Your task to perform on an android device: turn smart compose on in the gmail app Image 0: 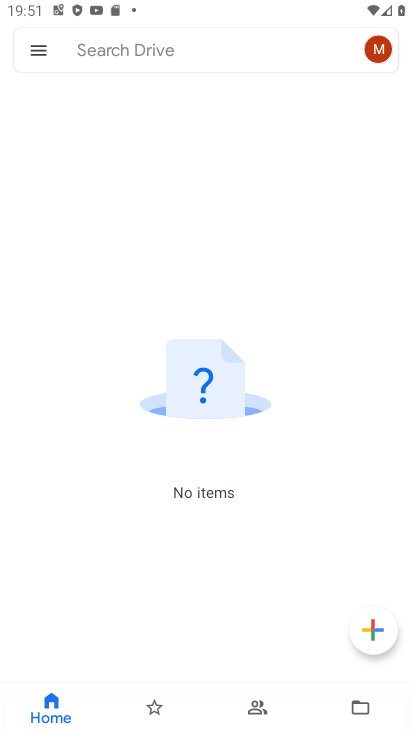
Step 0: press home button
Your task to perform on an android device: turn smart compose on in the gmail app Image 1: 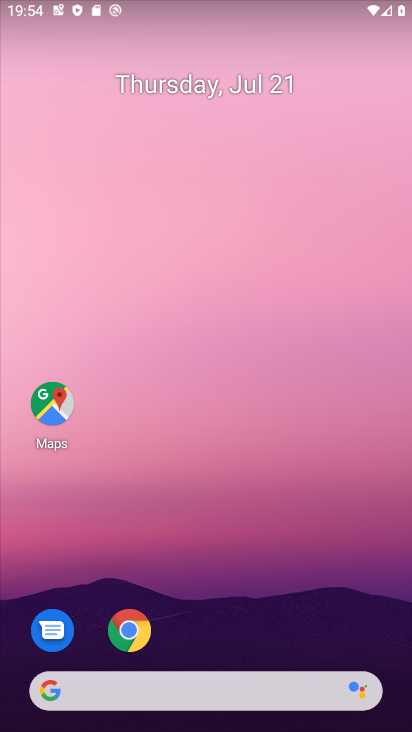
Step 1: drag from (161, 696) to (83, 0)
Your task to perform on an android device: turn smart compose on in the gmail app Image 2: 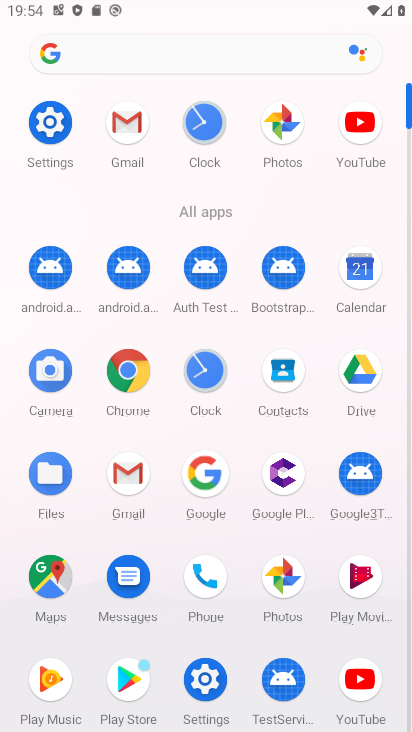
Step 2: click (129, 126)
Your task to perform on an android device: turn smart compose on in the gmail app Image 3: 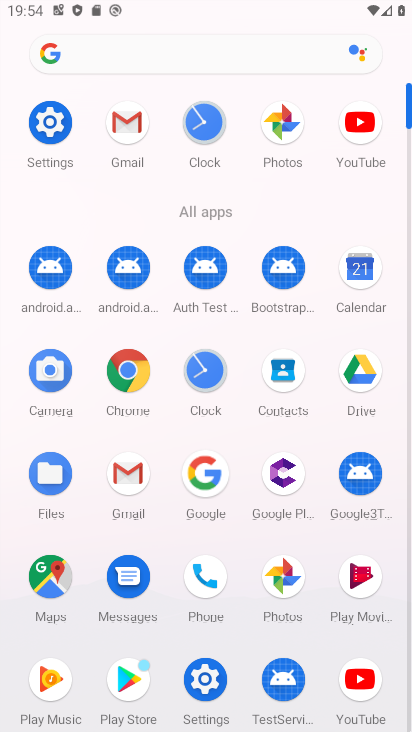
Step 3: click (129, 126)
Your task to perform on an android device: turn smart compose on in the gmail app Image 4: 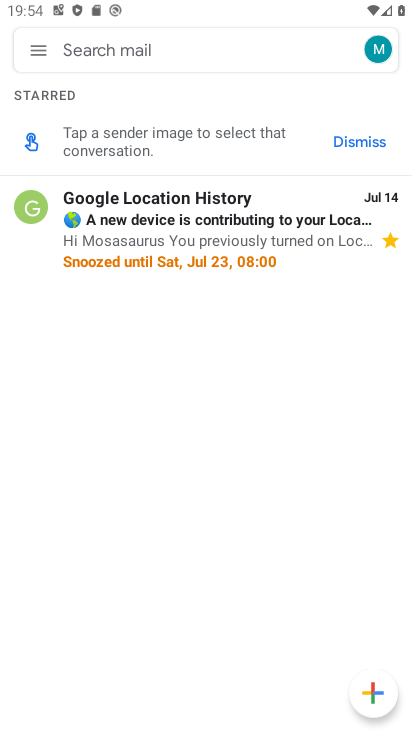
Step 4: click (29, 48)
Your task to perform on an android device: turn smart compose on in the gmail app Image 5: 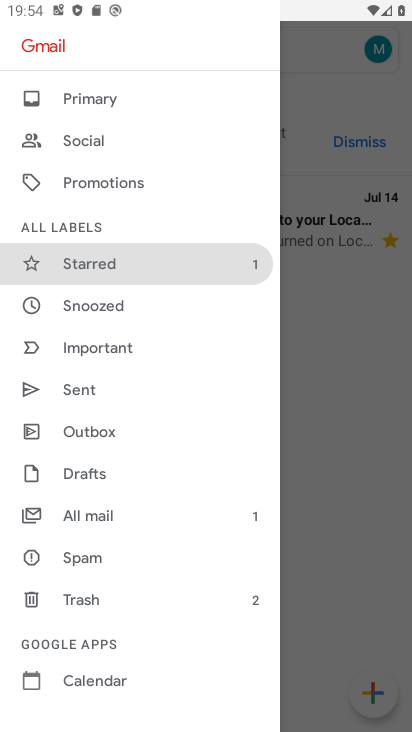
Step 5: drag from (123, 671) to (125, 75)
Your task to perform on an android device: turn smart compose on in the gmail app Image 6: 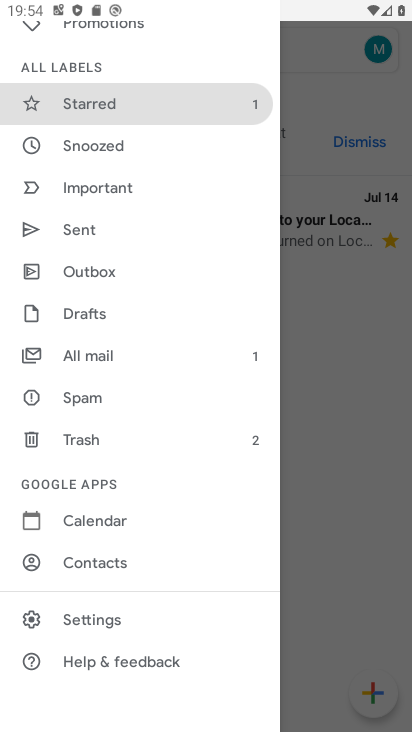
Step 6: click (140, 611)
Your task to perform on an android device: turn smart compose on in the gmail app Image 7: 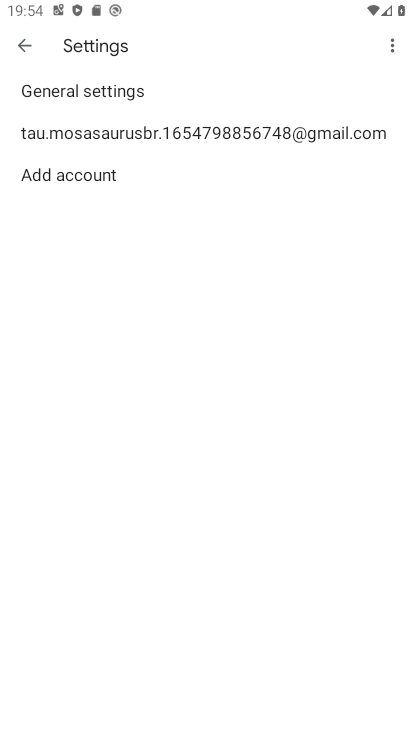
Step 7: click (222, 136)
Your task to perform on an android device: turn smart compose on in the gmail app Image 8: 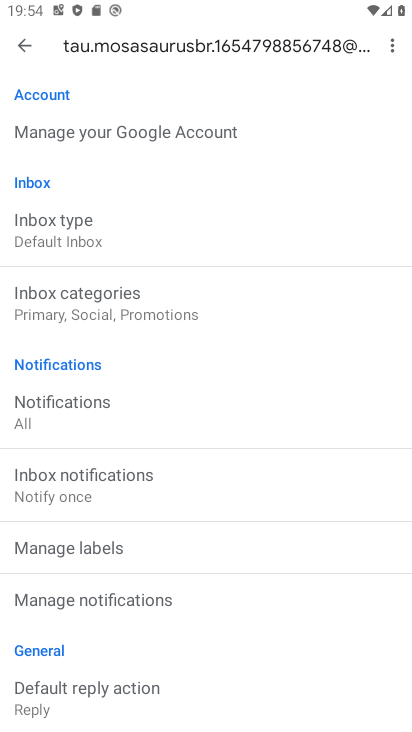
Step 8: task complete